Your task to perform on an android device: What's the weather like in Mumbai? Image 0: 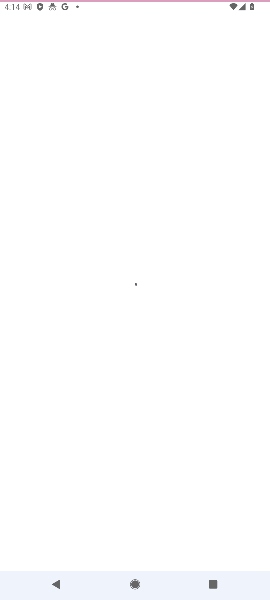
Step 0: click (52, 305)
Your task to perform on an android device: What's the weather like in Mumbai? Image 1: 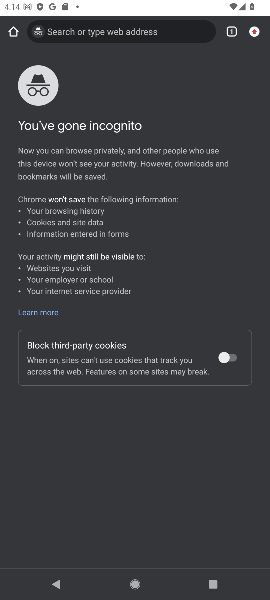
Step 1: click (52, 305)
Your task to perform on an android device: What's the weather like in Mumbai? Image 2: 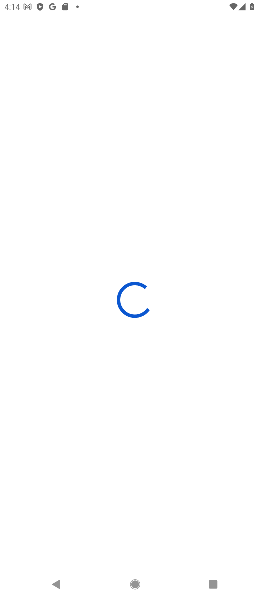
Step 2: press home button
Your task to perform on an android device: What's the weather like in Mumbai? Image 3: 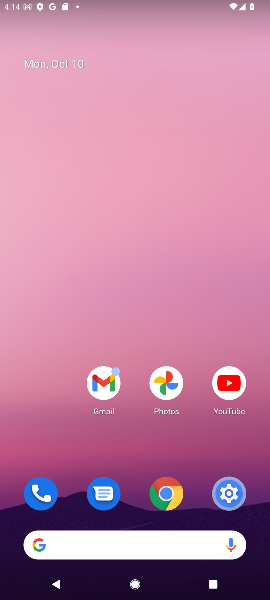
Step 3: click (171, 539)
Your task to perform on an android device: What's the weather like in Mumbai? Image 4: 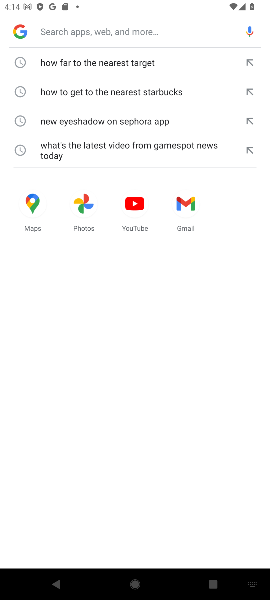
Step 4: type "What's the weather like in Mumbai?"
Your task to perform on an android device: What's the weather like in Mumbai? Image 5: 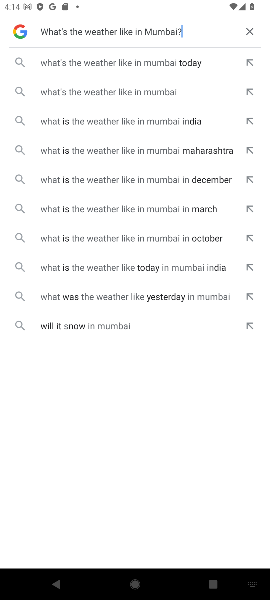
Step 5: click (185, 61)
Your task to perform on an android device: What's the weather like in Mumbai? Image 6: 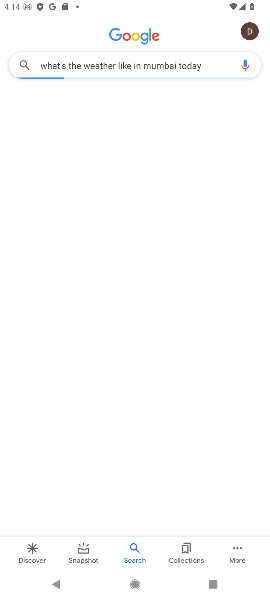
Step 6: task complete